Your task to perform on an android device: add a contact Image 0: 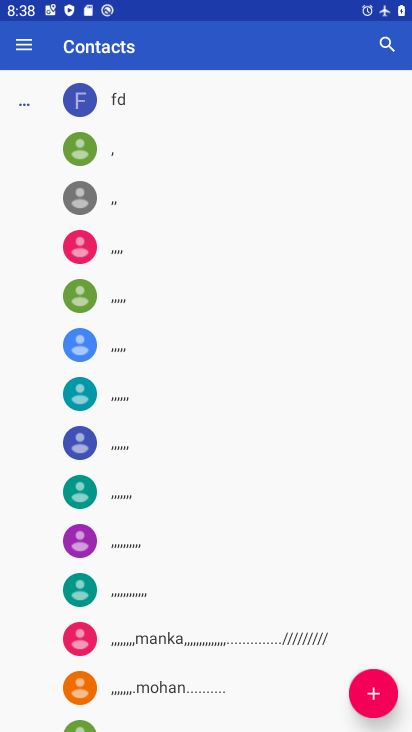
Step 0: press home button
Your task to perform on an android device: add a contact Image 1: 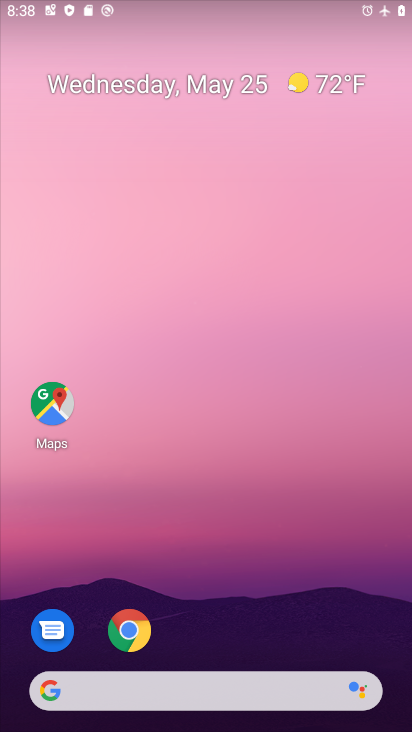
Step 1: drag from (200, 617) to (254, 184)
Your task to perform on an android device: add a contact Image 2: 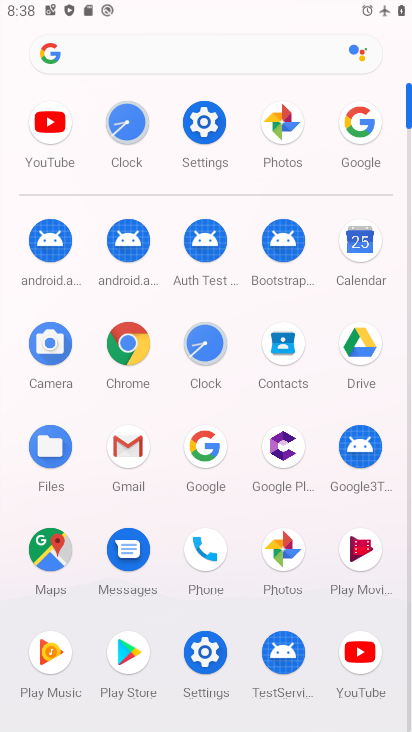
Step 2: click (280, 344)
Your task to perform on an android device: add a contact Image 3: 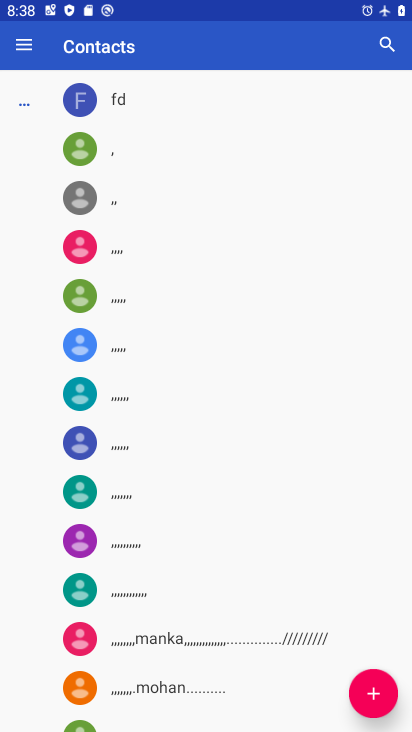
Step 3: click (379, 674)
Your task to perform on an android device: add a contact Image 4: 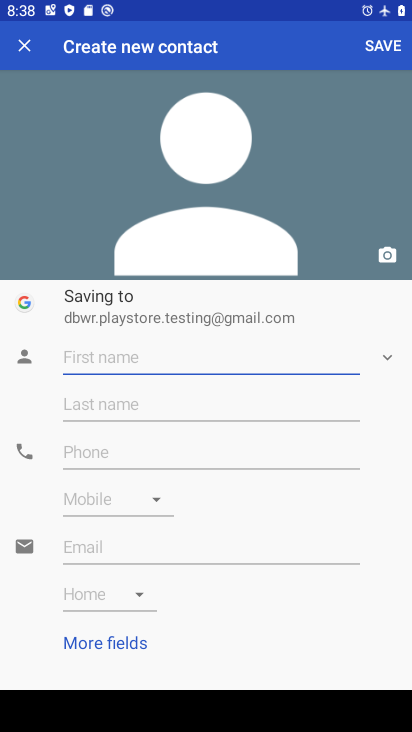
Step 4: type "yfgyjyt"
Your task to perform on an android device: add a contact Image 5: 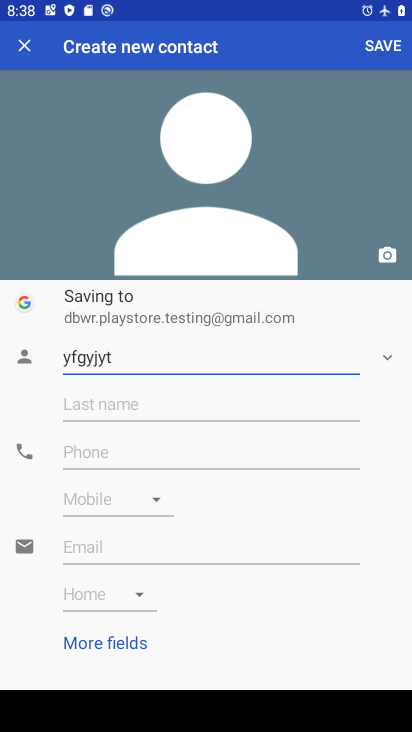
Step 5: click (158, 447)
Your task to perform on an android device: add a contact Image 6: 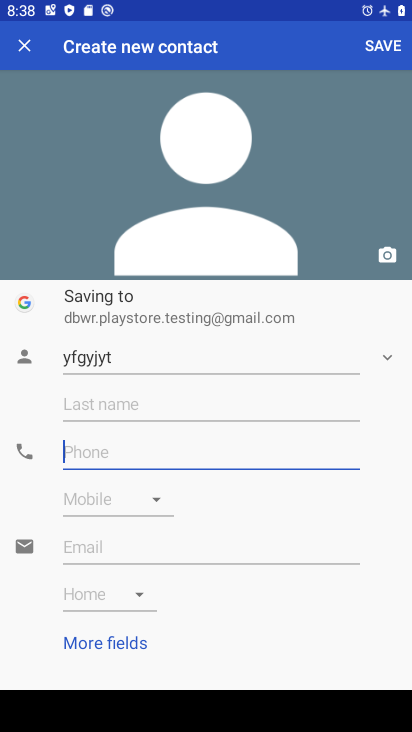
Step 6: type "9657567565"
Your task to perform on an android device: add a contact Image 7: 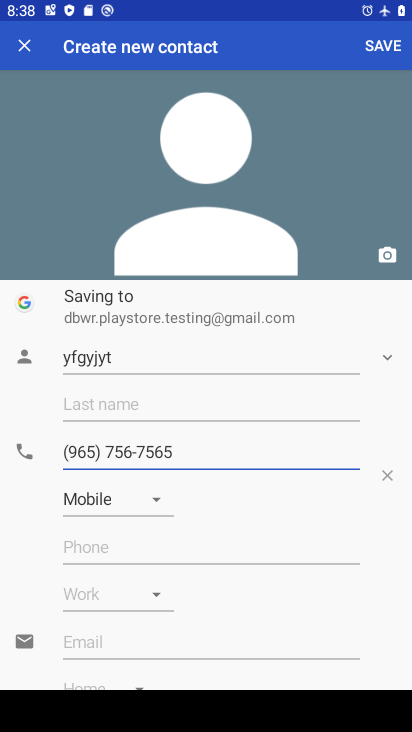
Step 7: click (390, 43)
Your task to perform on an android device: add a contact Image 8: 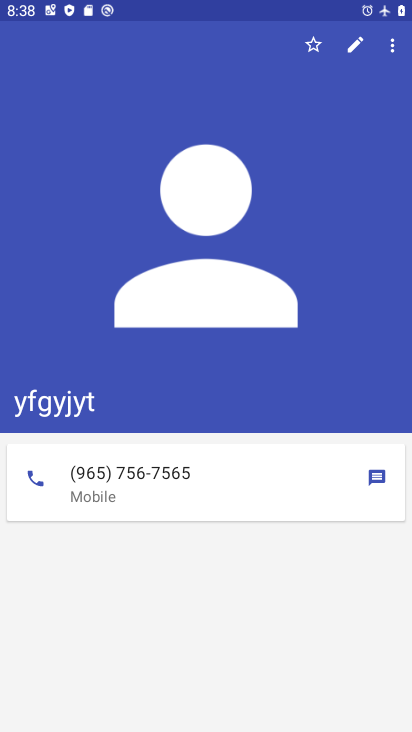
Step 8: task complete